Your task to perform on an android device: Open internet settings Image 0: 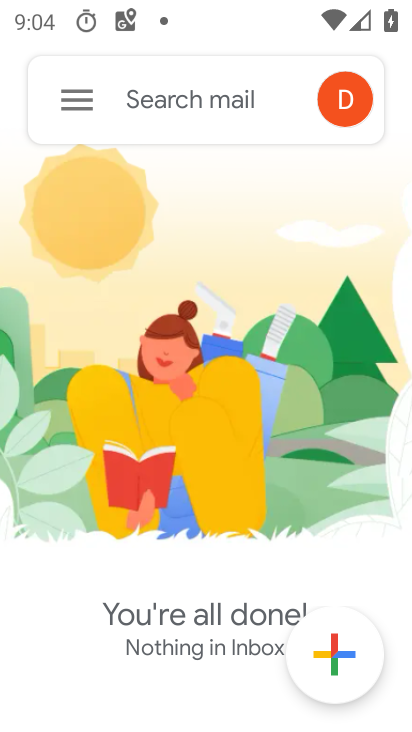
Step 0: press home button
Your task to perform on an android device: Open internet settings Image 1: 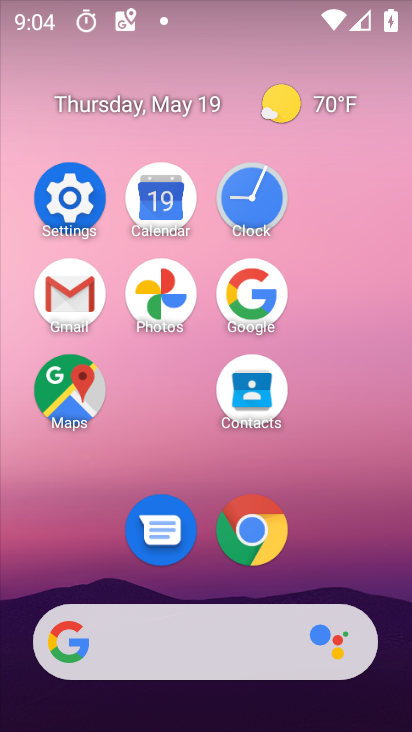
Step 1: click (81, 197)
Your task to perform on an android device: Open internet settings Image 2: 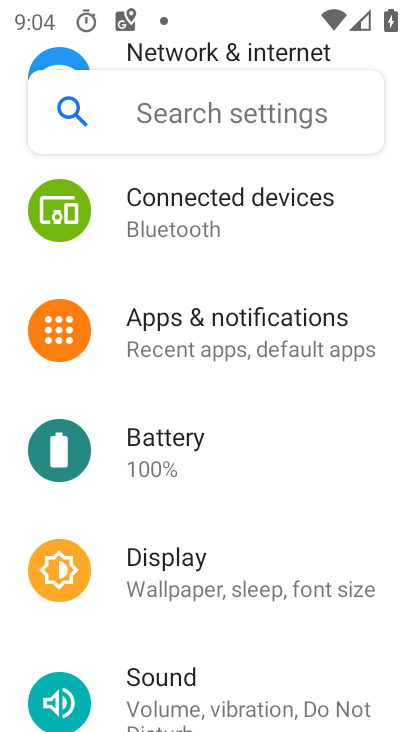
Step 2: drag from (308, 265) to (318, 596)
Your task to perform on an android device: Open internet settings Image 3: 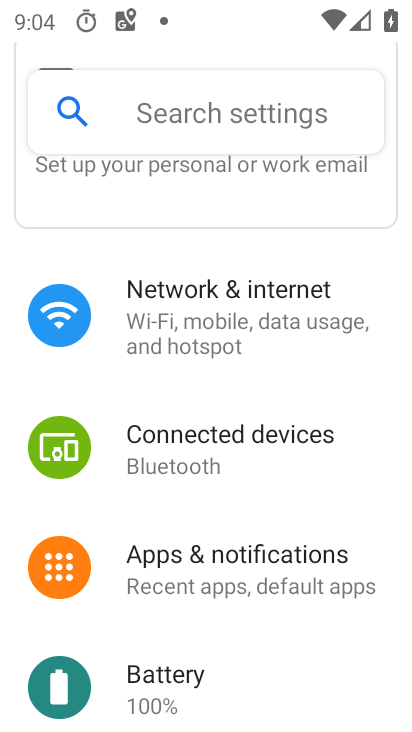
Step 3: click (246, 347)
Your task to perform on an android device: Open internet settings Image 4: 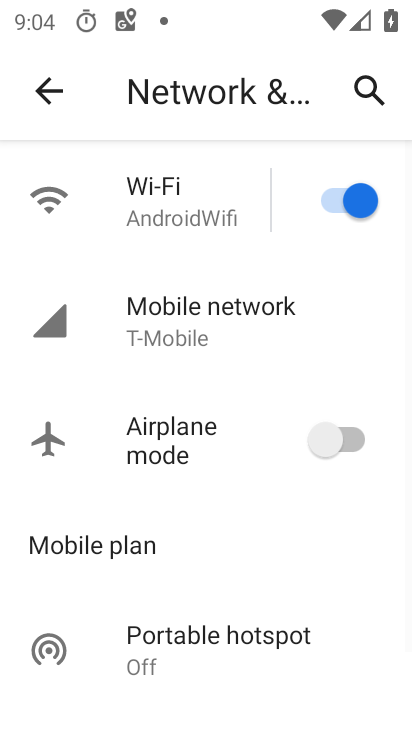
Step 4: click (248, 351)
Your task to perform on an android device: Open internet settings Image 5: 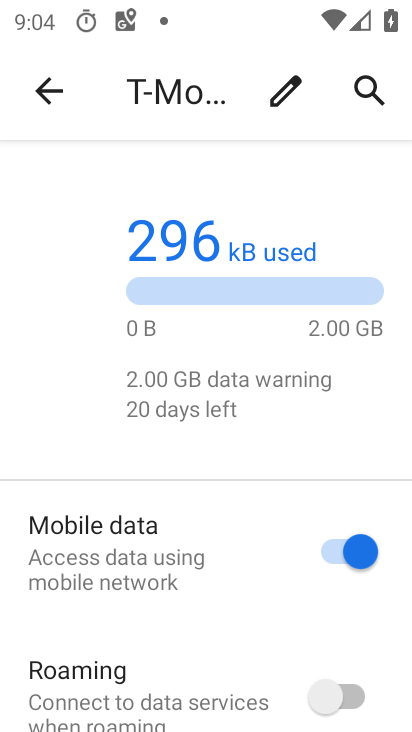
Step 5: task complete